Your task to perform on an android device: Search for sushi restaurants on Maps Image 0: 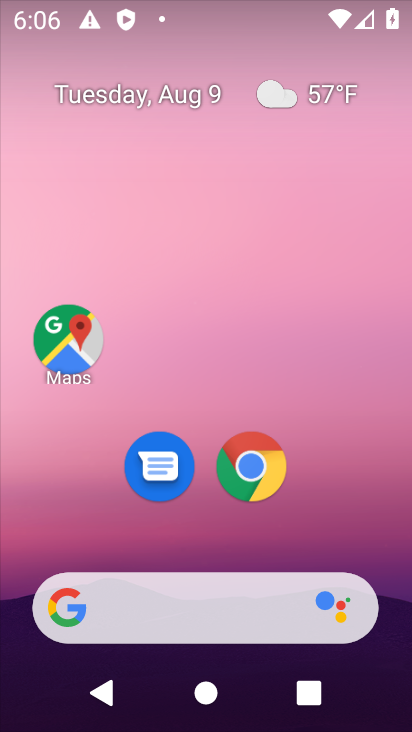
Step 0: click (56, 333)
Your task to perform on an android device: Search for sushi restaurants on Maps Image 1: 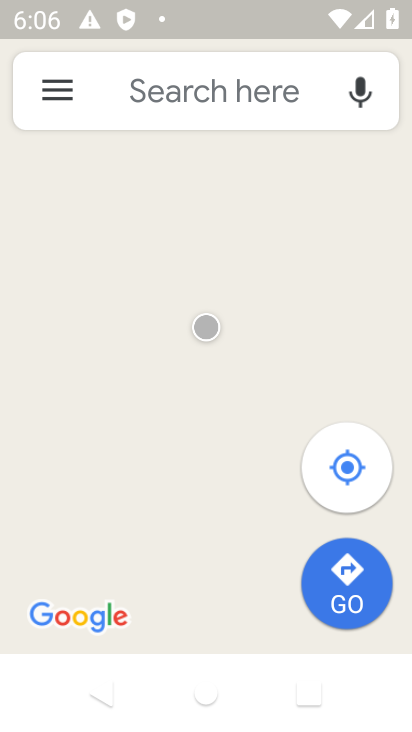
Step 1: click (191, 87)
Your task to perform on an android device: Search for sushi restaurants on Maps Image 2: 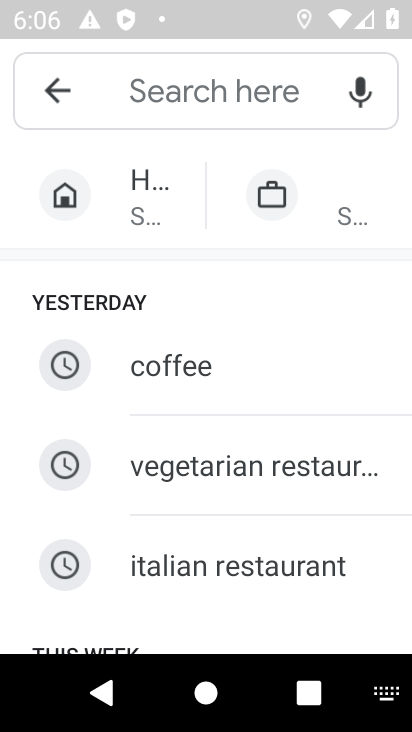
Step 2: type "sushi restaurants"
Your task to perform on an android device: Search for sushi restaurants on Maps Image 3: 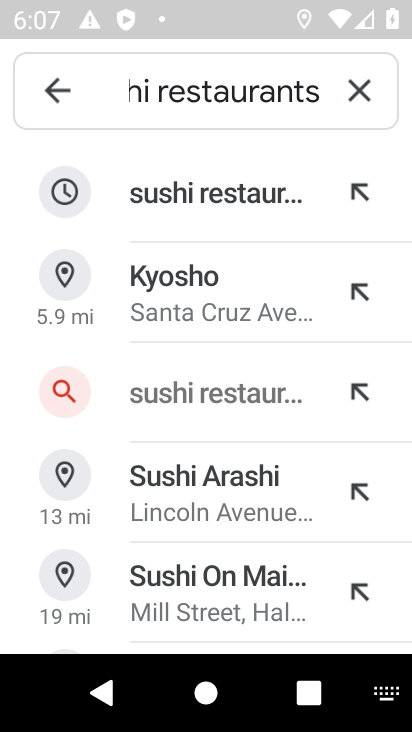
Step 3: click (265, 203)
Your task to perform on an android device: Search for sushi restaurants on Maps Image 4: 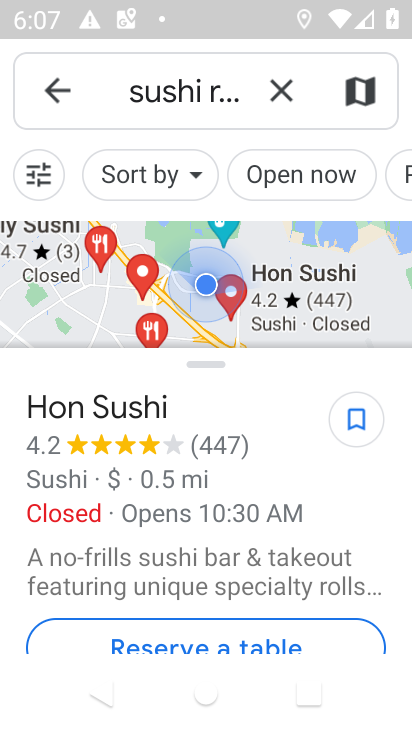
Step 4: task complete